Your task to perform on an android device: Open the phone app and click the voicemail tab. Image 0: 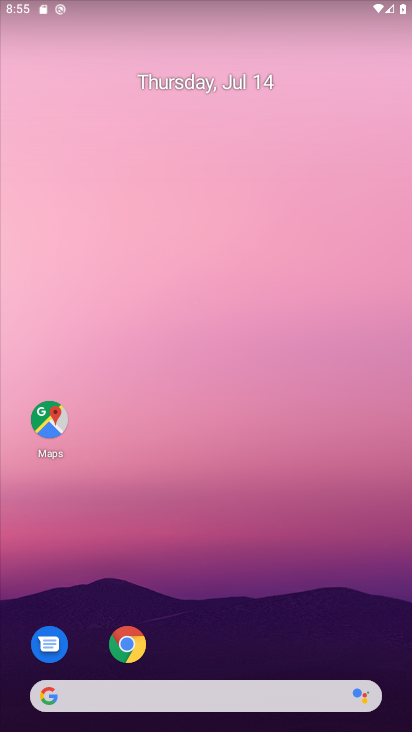
Step 0: drag from (171, 673) to (263, 116)
Your task to perform on an android device: Open the phone app and click the voicemail tab. Image 1: 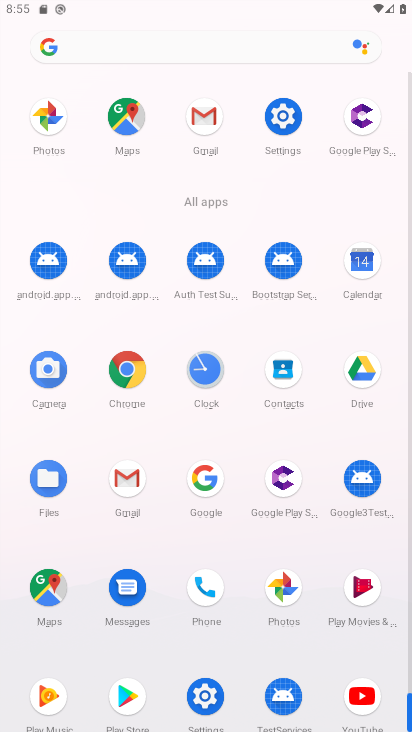
Step 1: click (207, 595)
Your task to perform on an android device: Open the phone app and click the voicemail tab. Image 2: 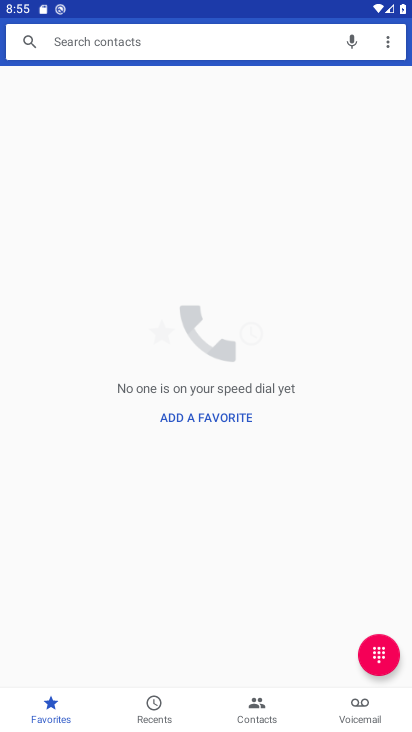
Step 2: click (357, 710)
Your task to perform on an android device: Open the phone app and click the voicemail tab. Image 3: 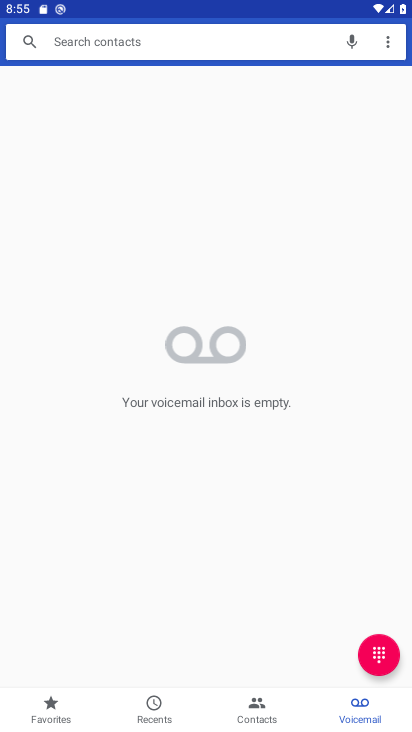
Step 3: task complete